Your task to perform on an android device: Open Google Maps Image 0: 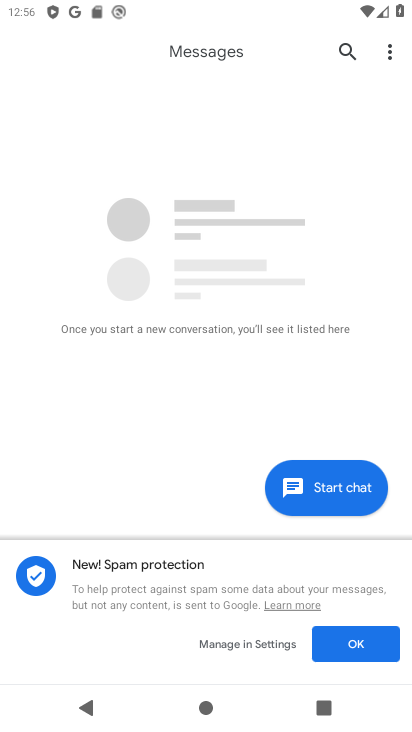
Step 0: drag from (229, 587) to (222, 112)
Your task to perform on an android device: Open Google Maps Image 1: 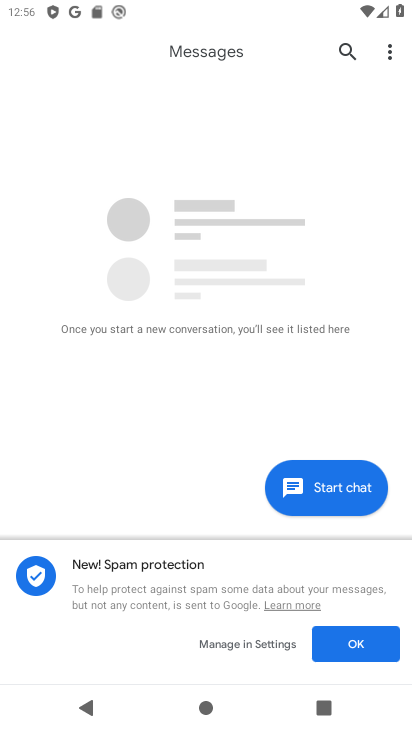
Step 1: press home button
Your task to perform on an android device: Open Google Maps Image 2: 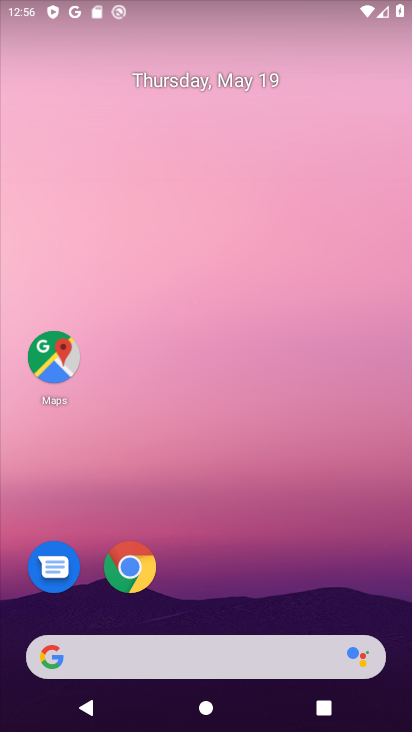
Step 2: drag from (339, 515) to (272, 106)
Your task to perform on an android device: Open Google Maps Image 3: 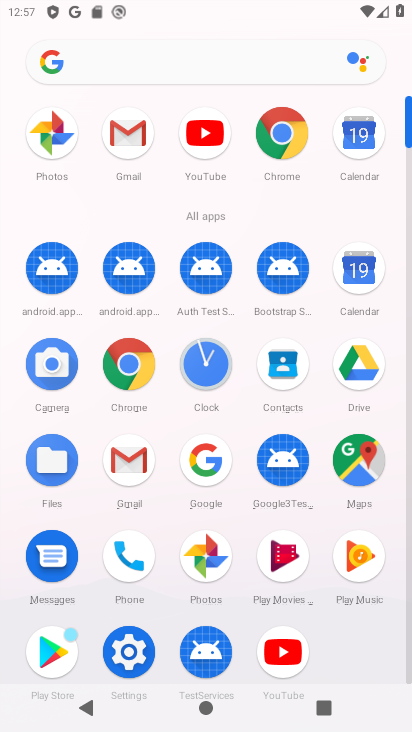
Step 3: click (372, 477)
Your task to perform on an android device: Open Google Maps Image 4: 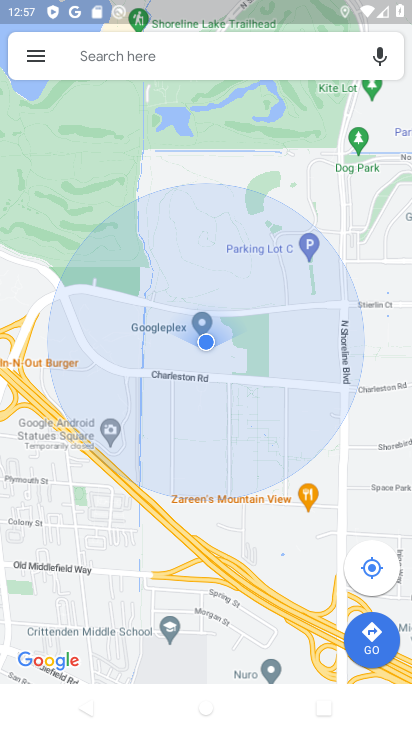
Step 4: task complete